Your task to perform on an android device: Open Google Chrome Image 0: 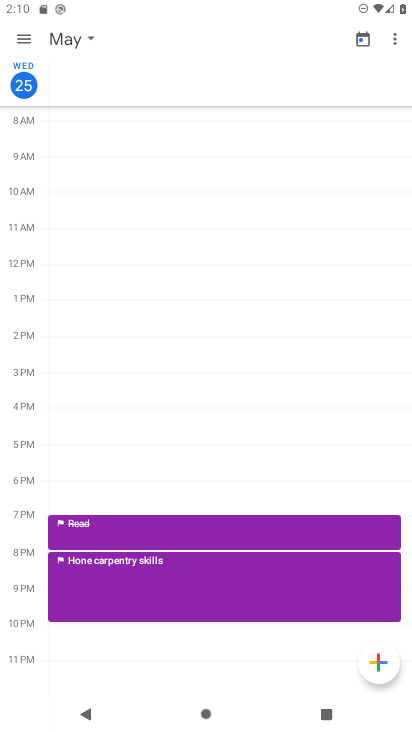
Step 0: press home button
Your task to perform on an android device: Open Google Chrome Image 1: 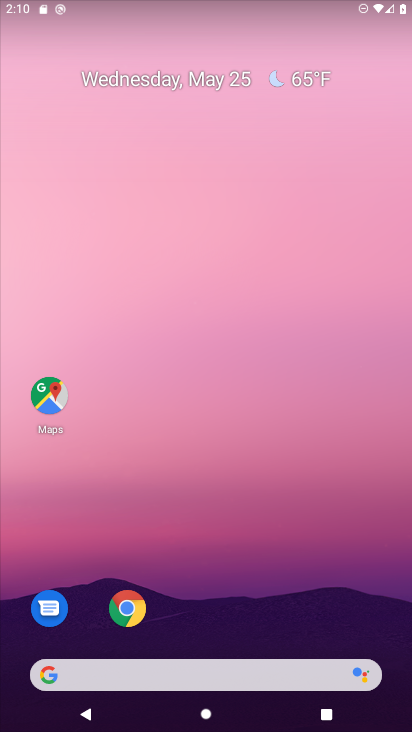
Step 1: click (127, 609)
Your task to perform on an android device: Open Google Chrome Image 2: 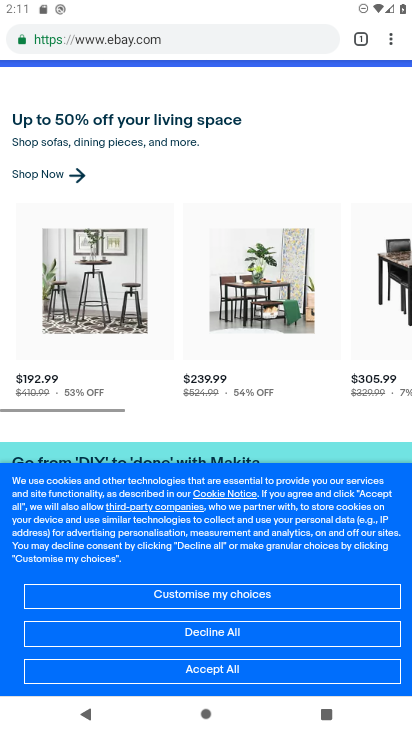
Step 2: task complete